Your task to perform on an android device: move a message to another label in the gmail app Image 0: 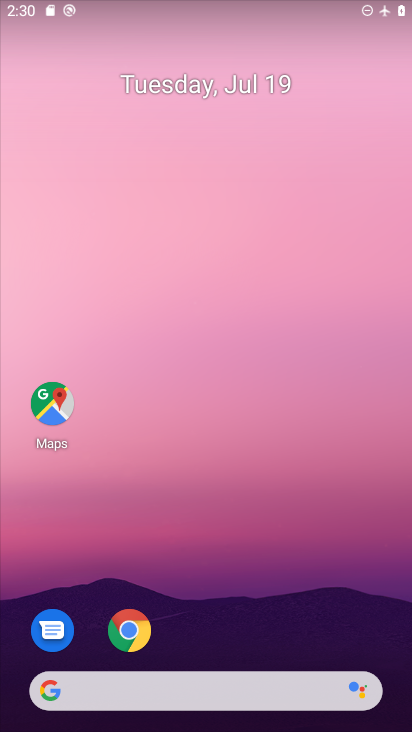
Step 0: drag from (342, 643) to (341, 118)
Your task to perform on an android device: move a message to another label in the gmail app Image 1: 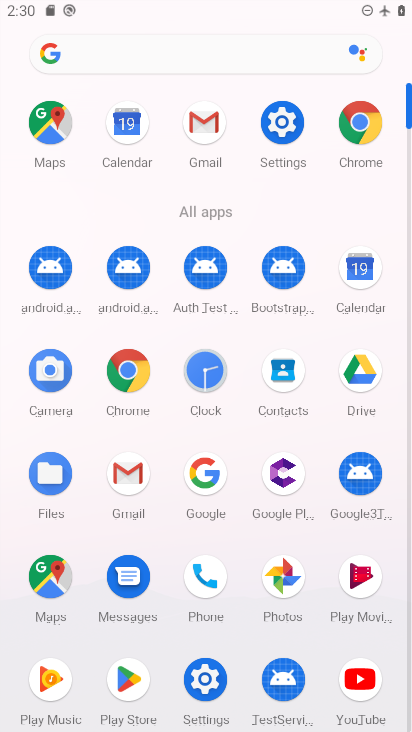
Step 1: click (127, 476)
Your task to perform on an android device: move a message to another label in the gmail app Image 2: 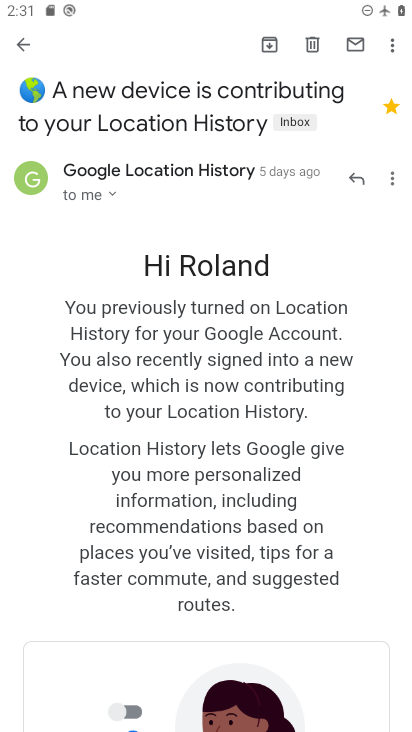
Step 2: click (392, 56)
Your task to perform on an android device: move a message to another label in the gmail app Image 3: 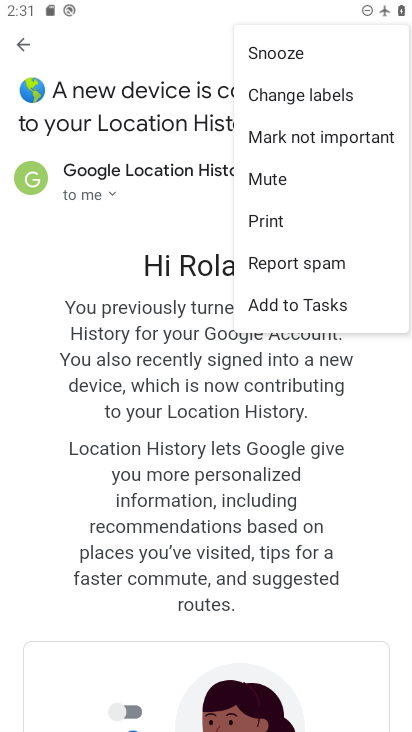
Step 3: task complete